Your task to perform on an android device: Open Wikipedia Image 0: 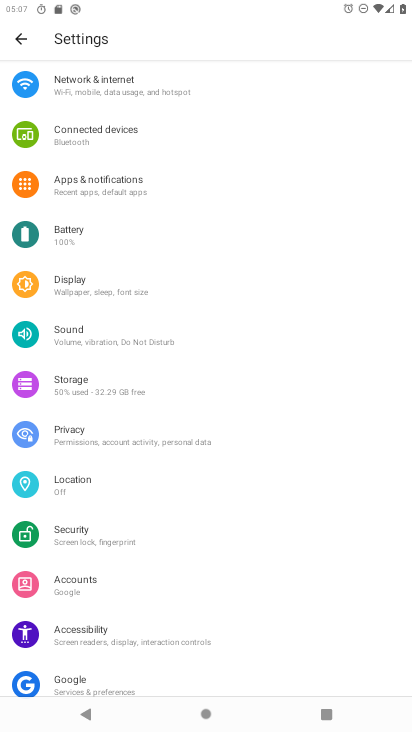
Step 0: press home button
Your task to perform on an android device: Open Wikipedia Image 1: 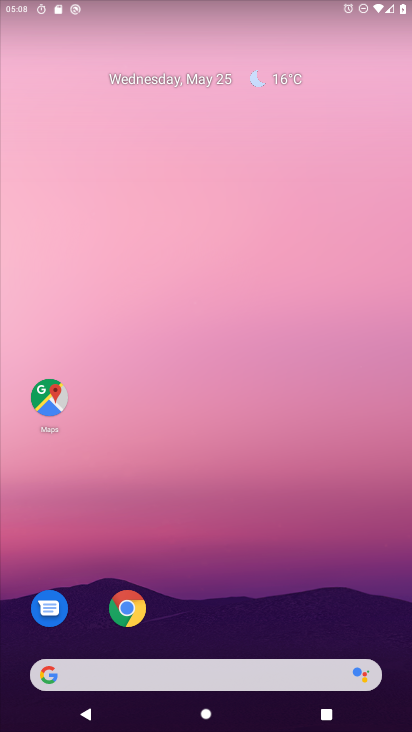
Step 1: click (122, 609)
Your task to perform on an android device: Open Wikipedia Image 2: 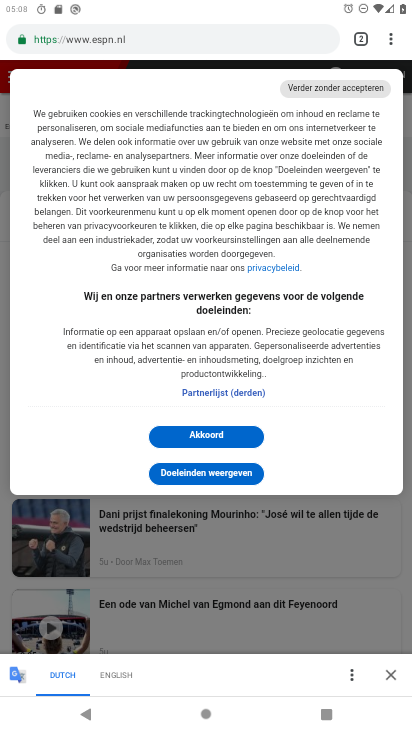
Step 2: click (118, 29)
Your task to perform on an android device: Open Wikipedia Image 3: 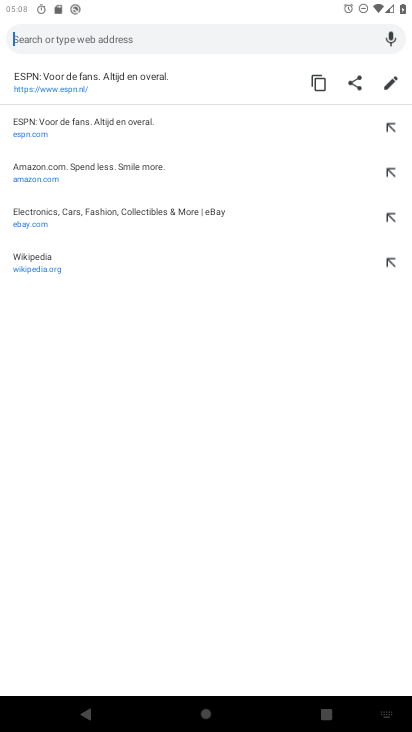
Step 3: type "wikipedia"
Your task to perform on an android device: Open Wikipedia Image 4: 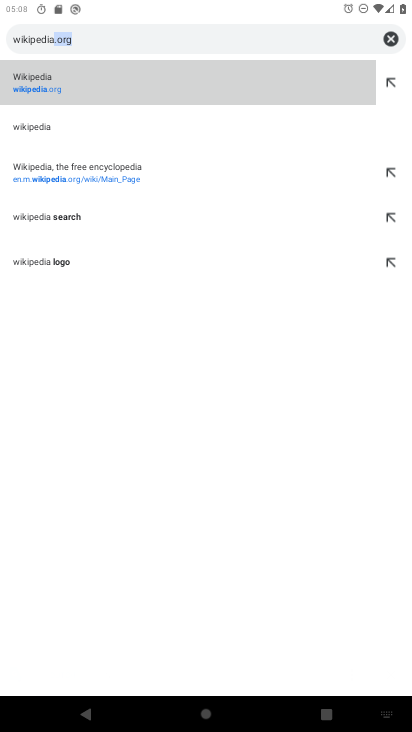
Step 4: click (40, 84)
Your task to perform on an android device: Open Wikipedia Image 5: 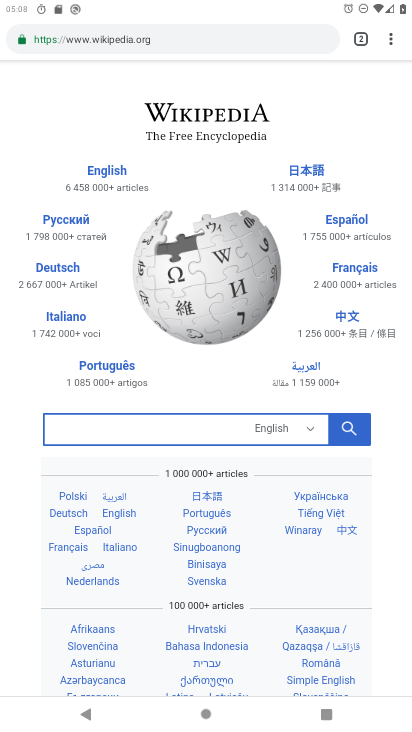
Step 5: task complete